Your task to perform on an android device: toggle wifi Image 0: 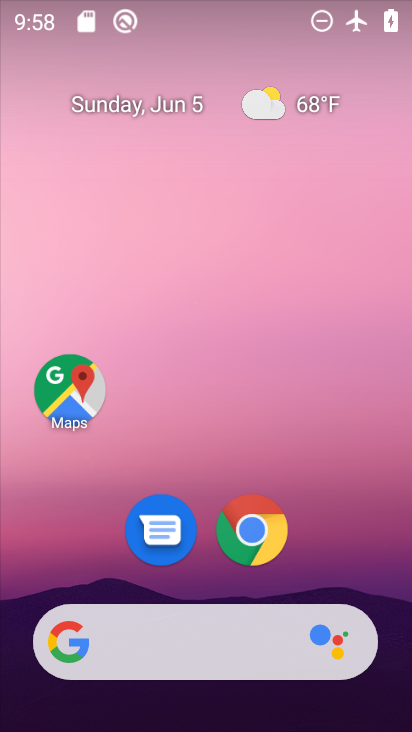
Step 0: drag from (401, 619) to (290, 144)
Your task to perform on an android device: toggle wifi Image 1: 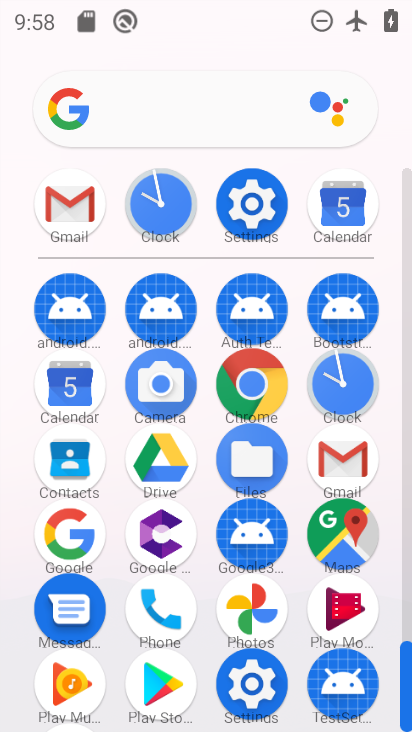
Step 1: click (251, 686)
Your task to perform on an android device: toggle wifi Image 2: 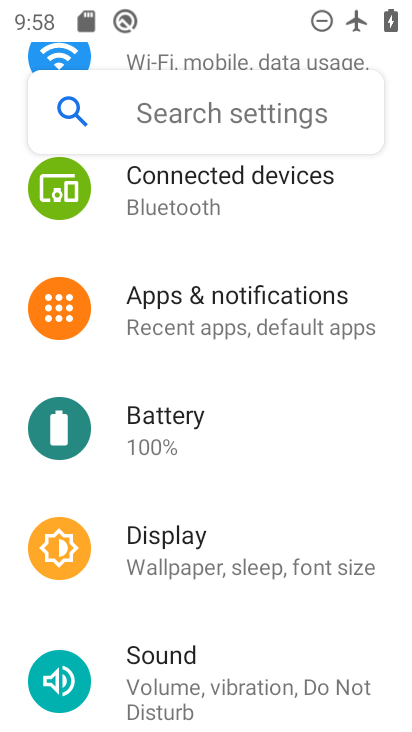
Step 2: drag from (296, 295) to (286, 516)
Your task to perform on an android device: toggle wifi Image 3: 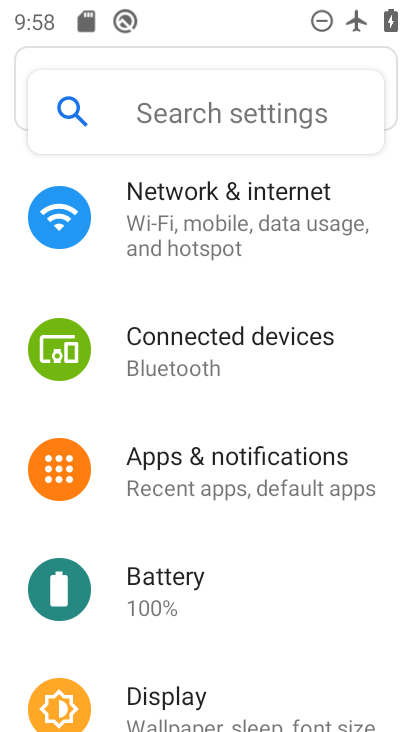
Step 3: click (183, 210)
Your task to perform on an android device: toggle wifi Image 4: 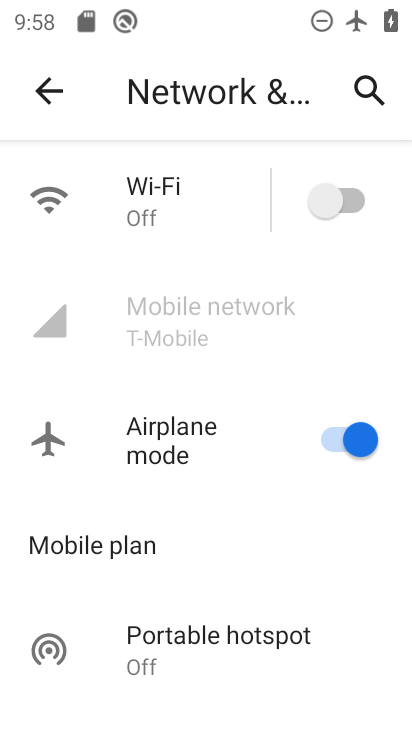
Step 4: click (356, 196)
Your task to perform on an android device: toggle wifi Image 5: 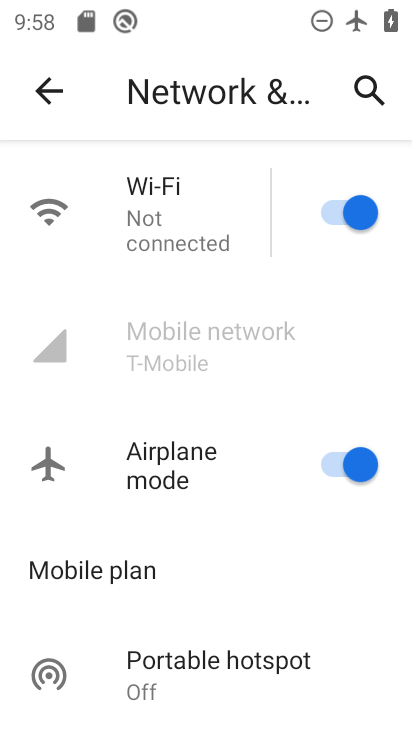
Step 5: task complete